Your task to perform on an android device: Open the calendar and show me this week's events? Image 0: 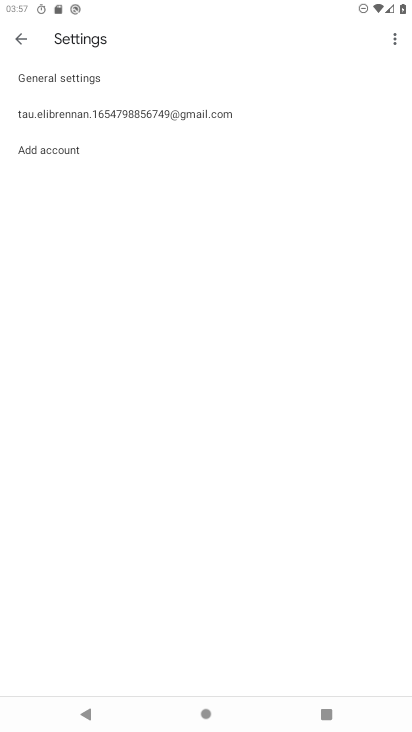
Step 0: press home button
Your task to perform on an android device: Open the calendar and show me this week's events? Image 1: 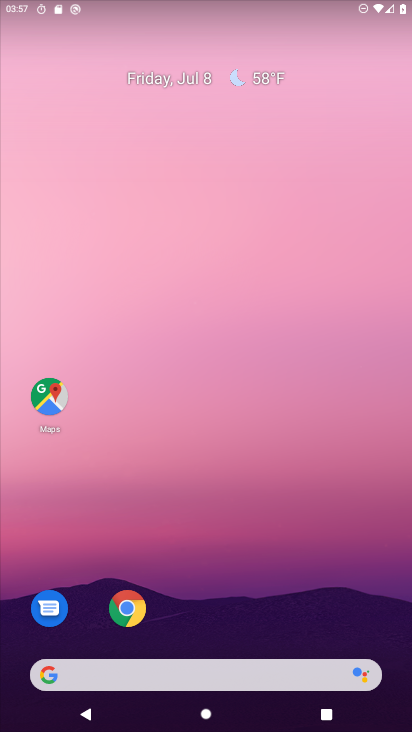
Step 1: drag from (251, 717) to (232, 219)
Your task to perform on an android device: Open the calendar and show me this week's events? Image 2: 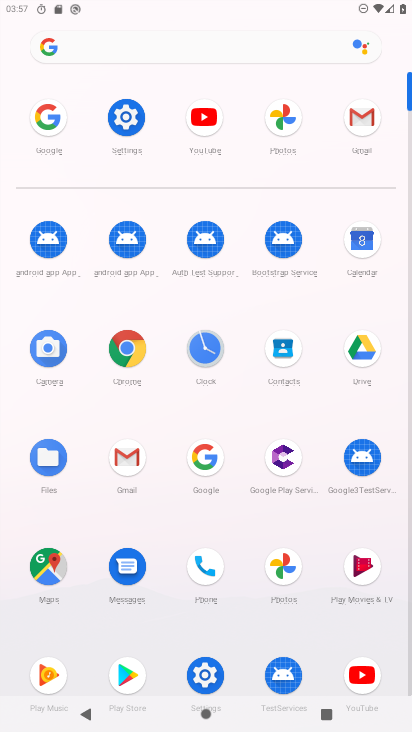
Step 2: click (367, 238)
Your task to perform on an android device: Open the calendar and show me this week's events? Image 3: 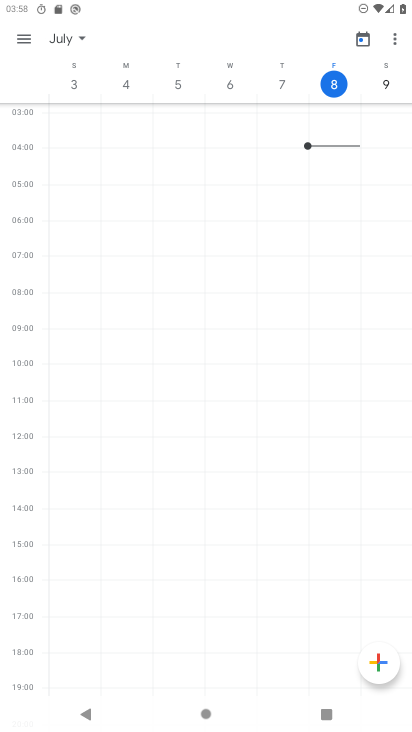
Step 3: click (23, 35)
Your task to perform on an android device: Open the calendar and show me this week's events? Image 4: 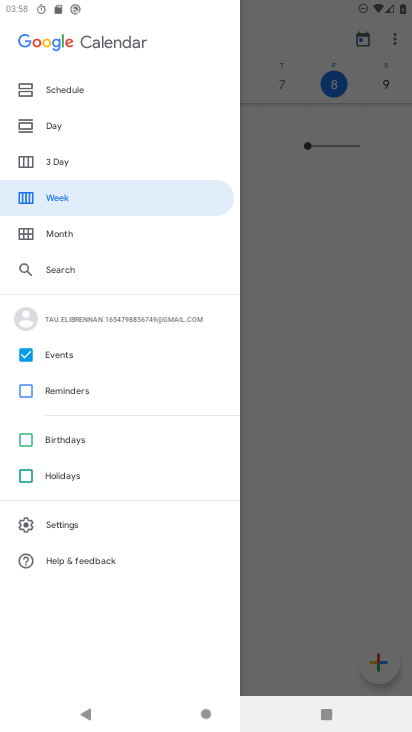
Step 4: click (59, 198)
Your task to perform on an android device: Open the calendar and show me this week's events? Image 5: 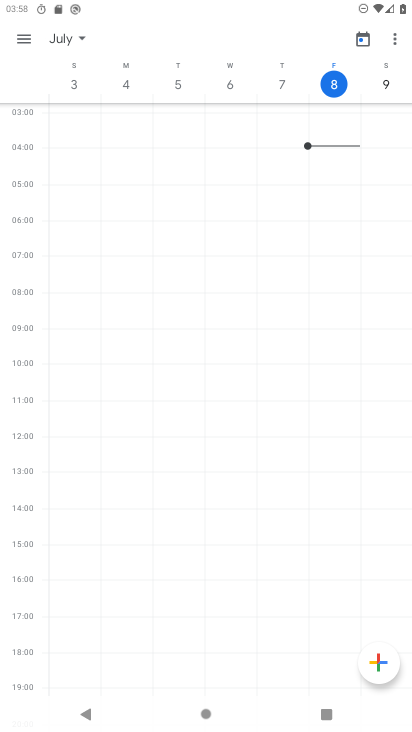
Step 5: task complete